Your task to perform on an android device: open app "Google Photos" (install if not already installed) Image 0: 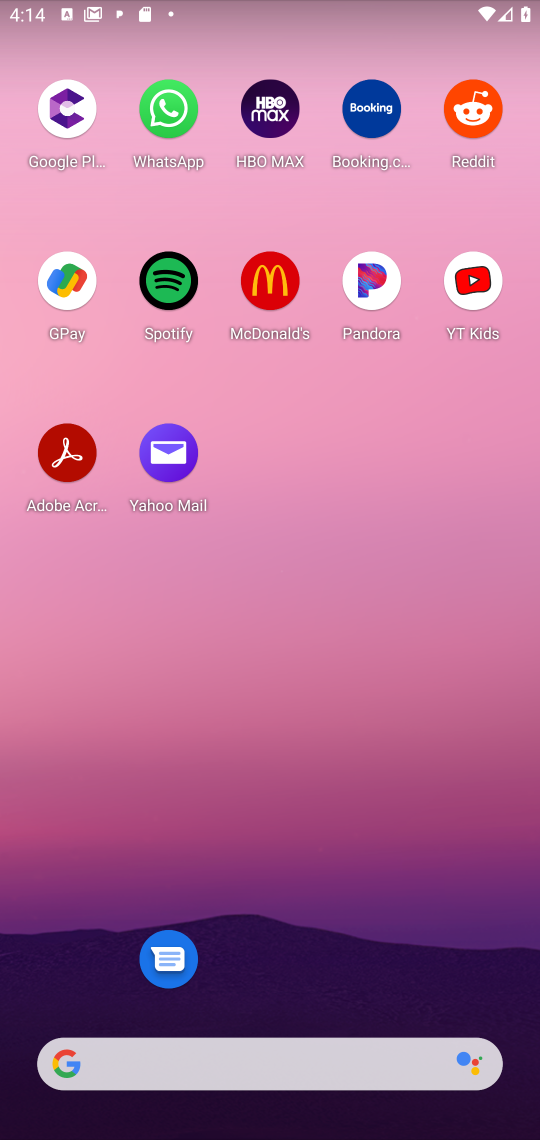
Step 0: drag from (279, 1022) to (312, 127)
Your task to perform on an android device: open app "Google Photos" (install if not already installed) Image 1: 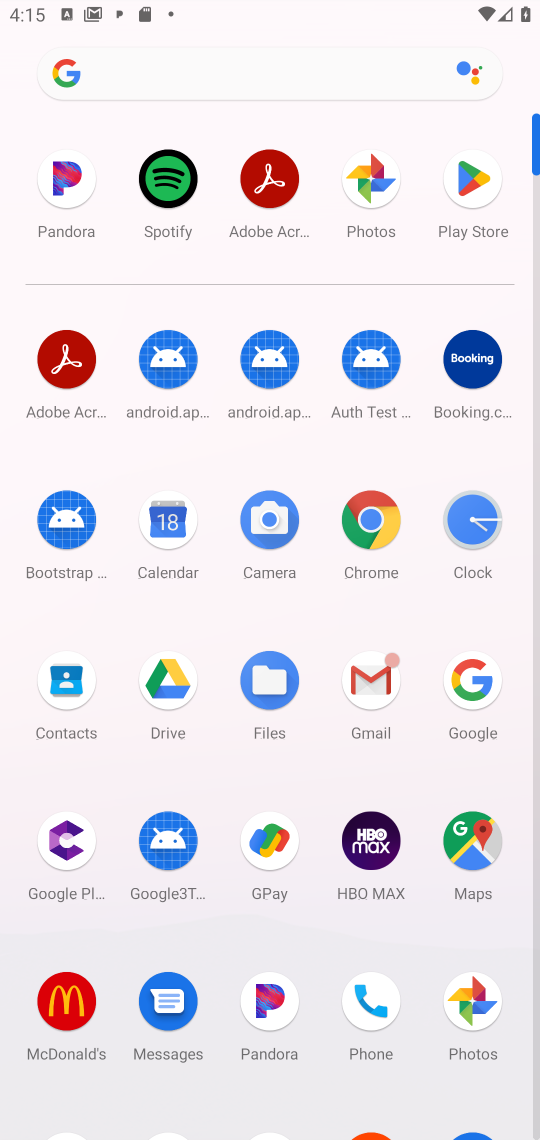
Step 1: drag from (297, 888) to (316, 126)
Your task to perform on an android device: open app "Google Photos" (install if not already installed) Image 2: 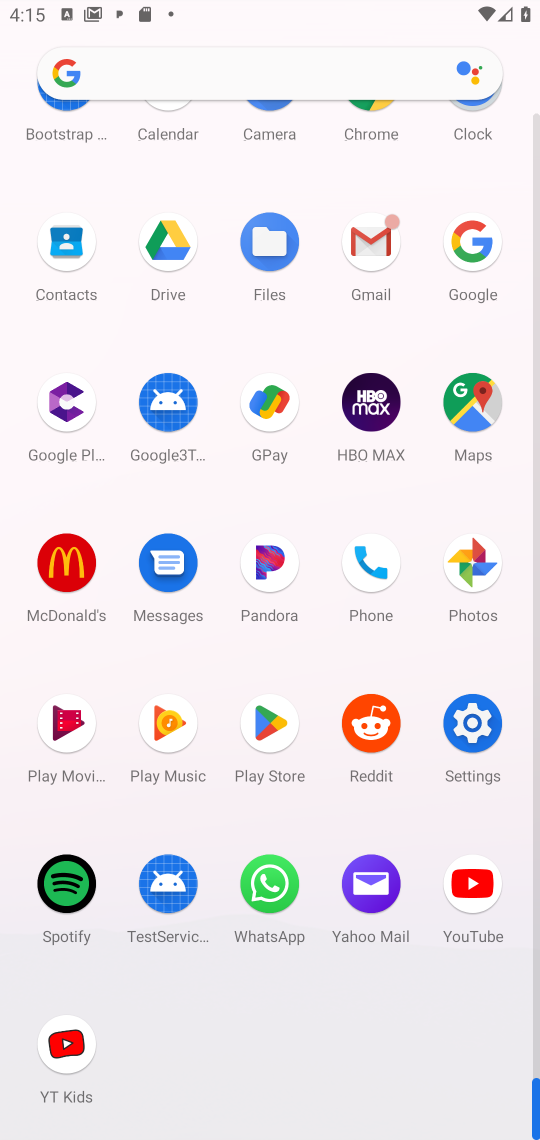
Step 2: click (476, 604)
Your task to perform on an android device: open app "Google Photos" (install if not already installed) Image 3: 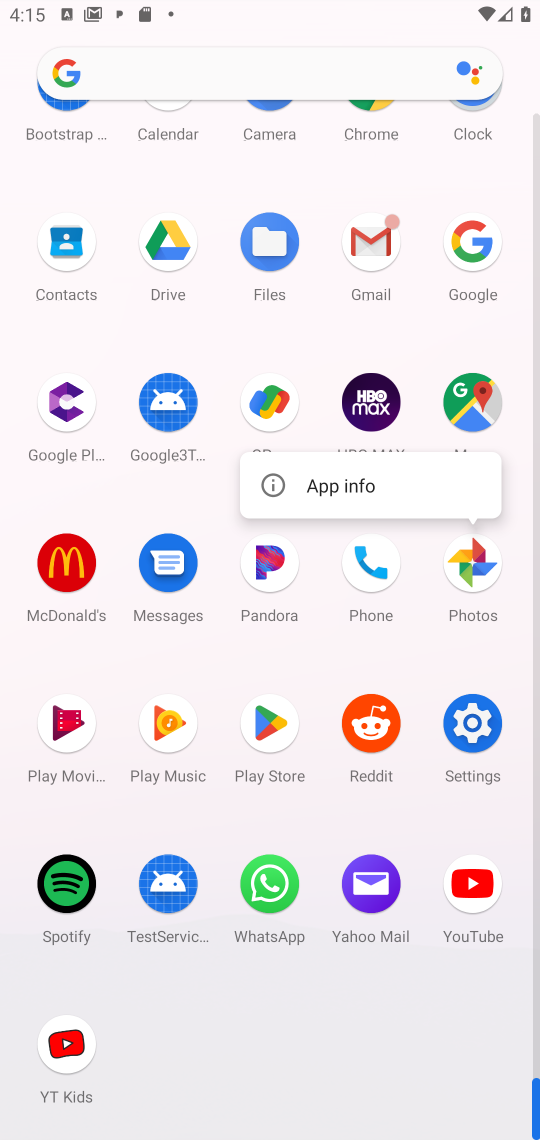
Step 3: click (474, 597)
Your task to perform on an android device: open app "Google Photos" (install if not already installed) Image 4: 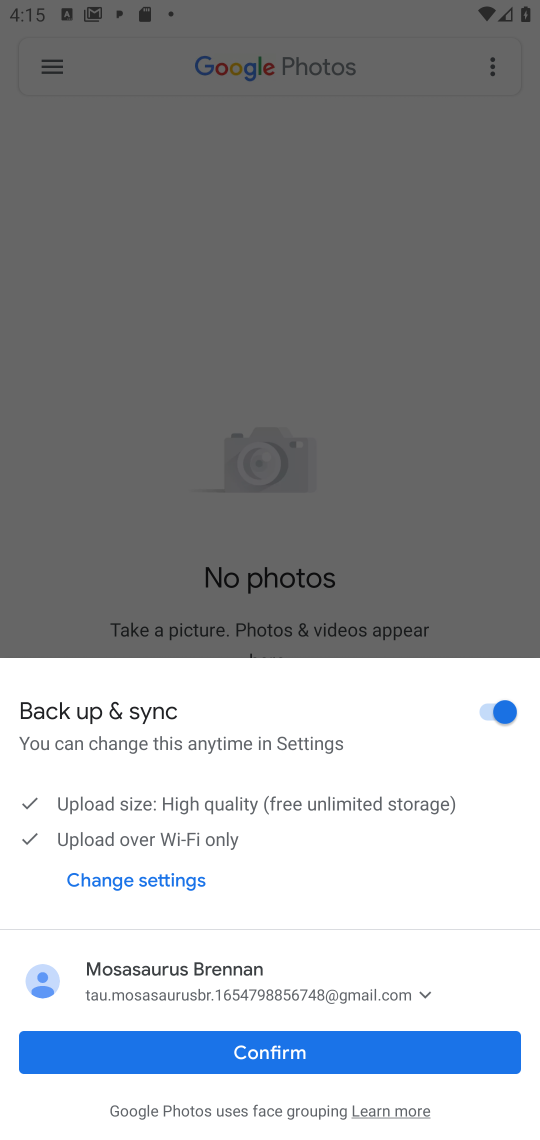
Step 4: task complete